Your task to perform on an android device: change notification settings in the gmail app Image 0: 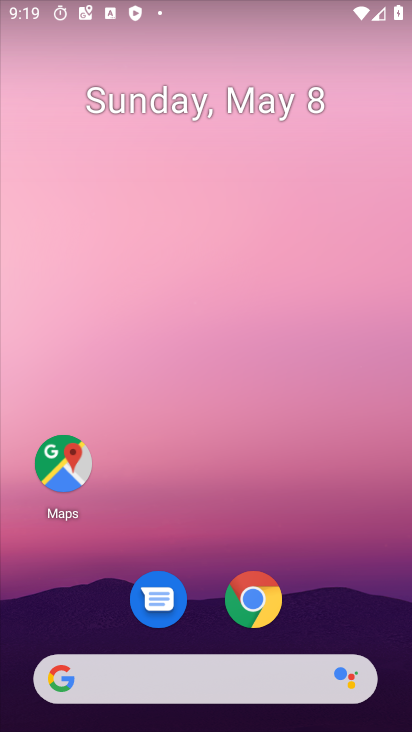
Step 0: drag from (303, 681) to (314, 144)
Your task to perform on an android device: change notification settings in the gmail app Image 1: 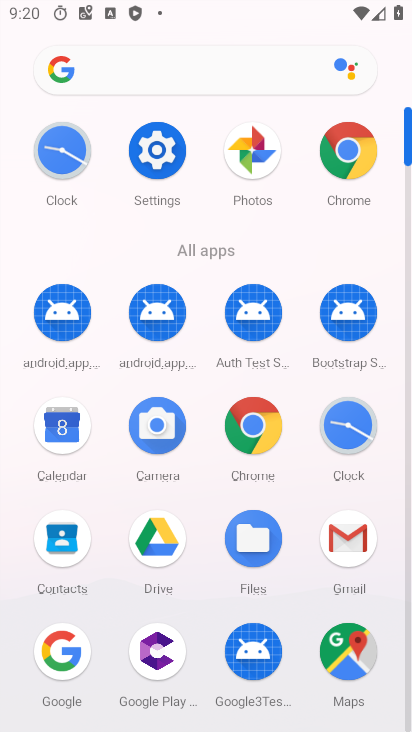
Step 1: click (337, 552)
Your task to perform on an android device: change notification settings in the gmail app Image 2: 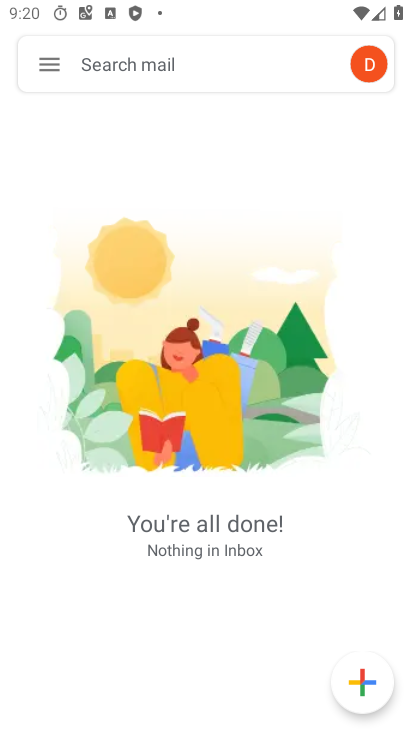
Step 2: click (64, 78)
Your task to perform on an android device: change notification settings in the gmail app Image 3: 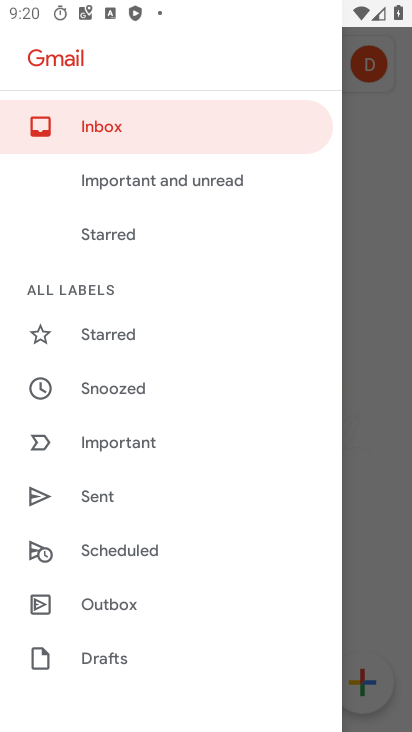
Step 3: drag from (160, 531) to (266, 136)
Your task to perform on an android device: change notification settings in the gmail app Image 4: 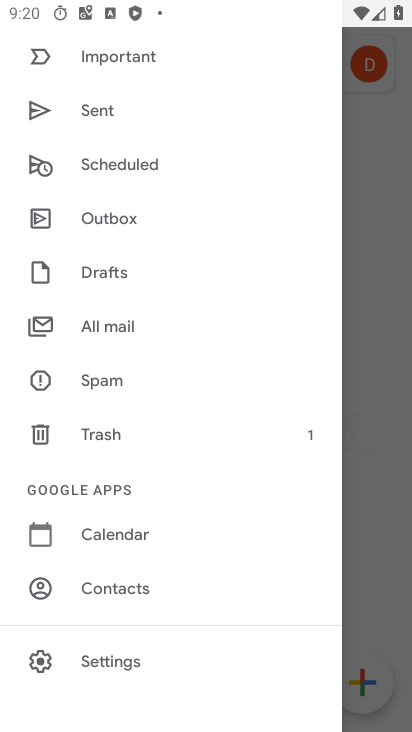
Step 4: click (112, 665)
Your task to perform on an android device: change notification settings in the gmail app Image 5: 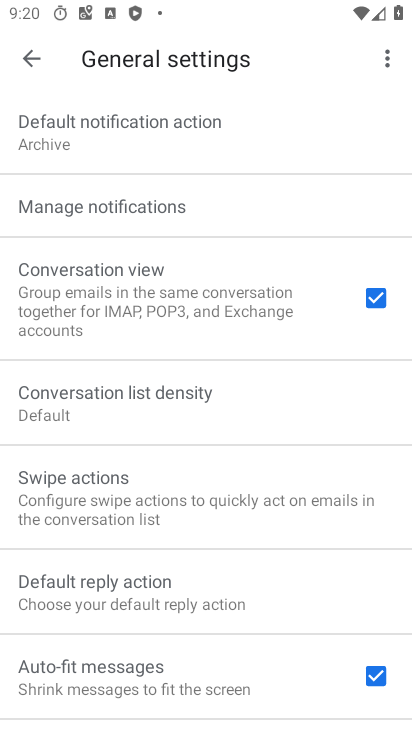
Step 5: click (160, 219)
Your task to perform on an android device: change notification settings in the gmail app Image 6: 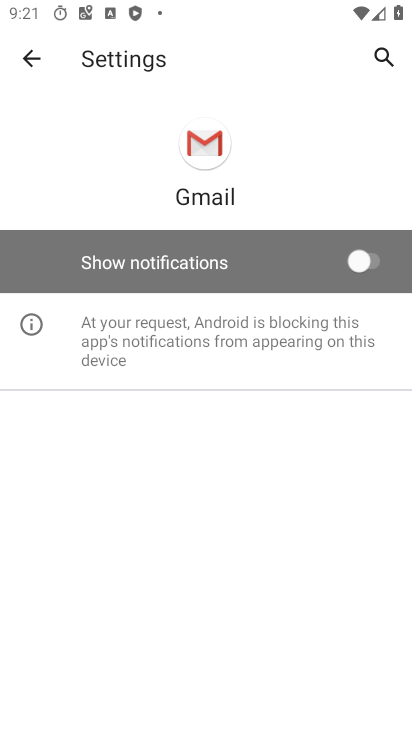
Step 6: click (368, 257)
Your task to perform on an android device: change notification settings in the gmail app Image 7: 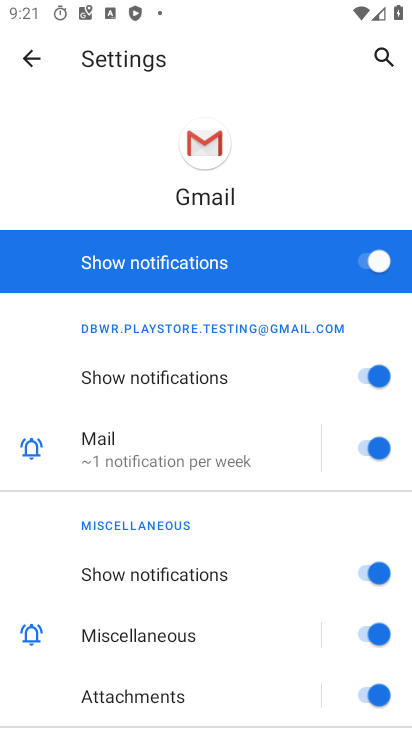
Step 7: task complete